Your task to perform on an android device: Open the stopwatch Image 0: 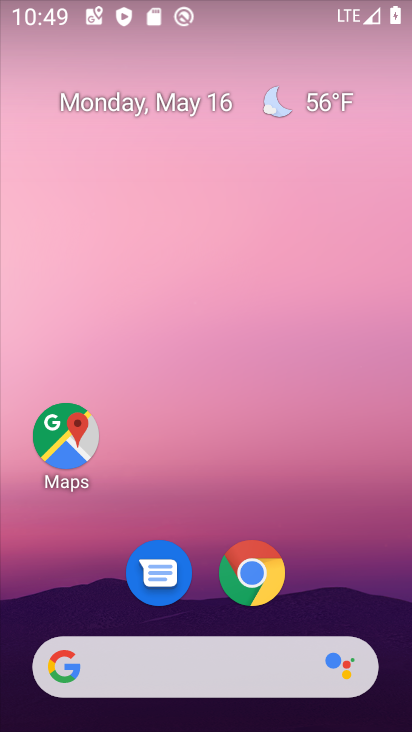
Step 0: drag from (215, 647) to (293, 2)
Your task to perform on an android device: Open the stopwatch Image 1: 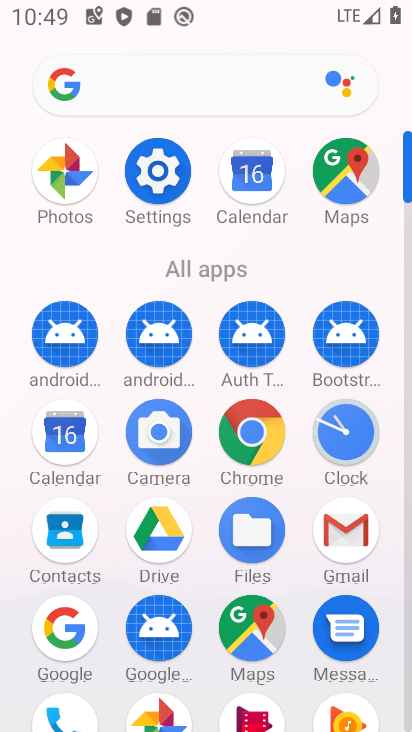
Step 1: click (349, 443)
Your task to perform on an android device: Open the stopwatch Image 2: 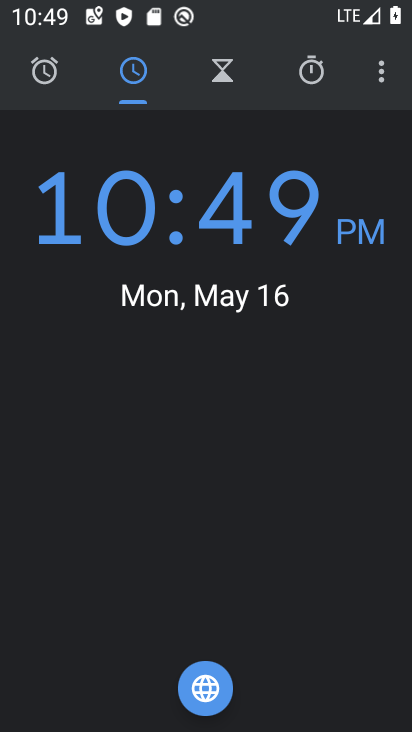
Step 2: click (313, 71)
Your task to perform on an android device: Open the stopwatch Image 3: 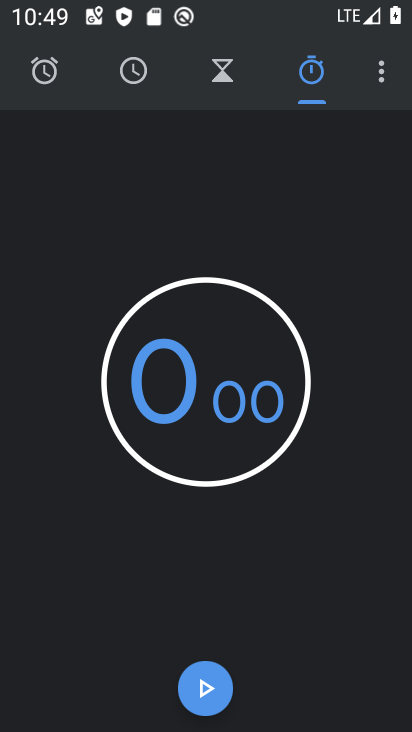
Step 3: task complete